Your task to perform on an android device: Open Yahoo.com Image 0: 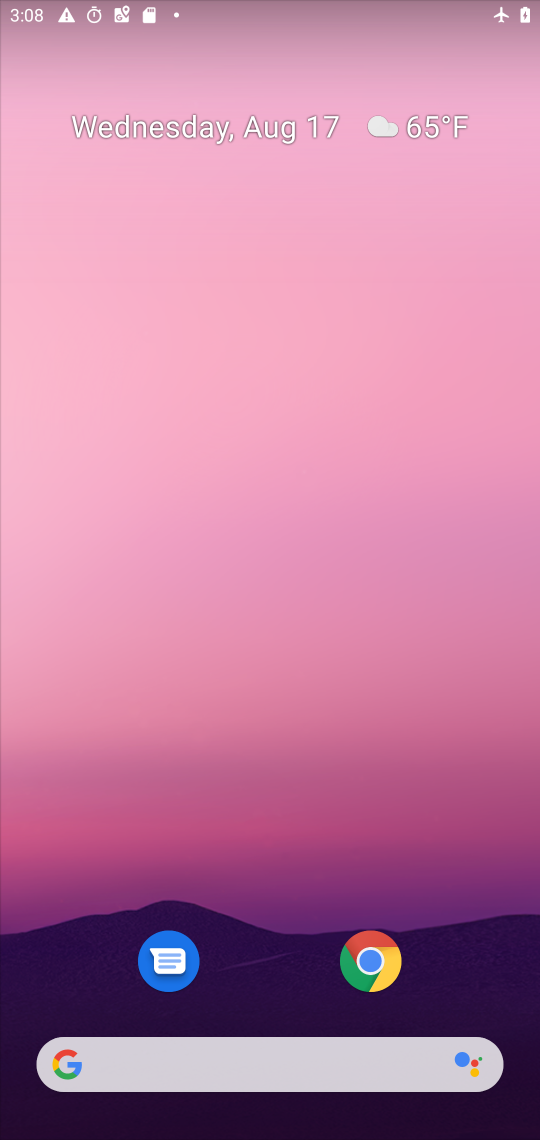
Step 0: drag from (322, 1076) to (351, 4)
Your task to perform on an android device: Open Yahoo.com Image 1: 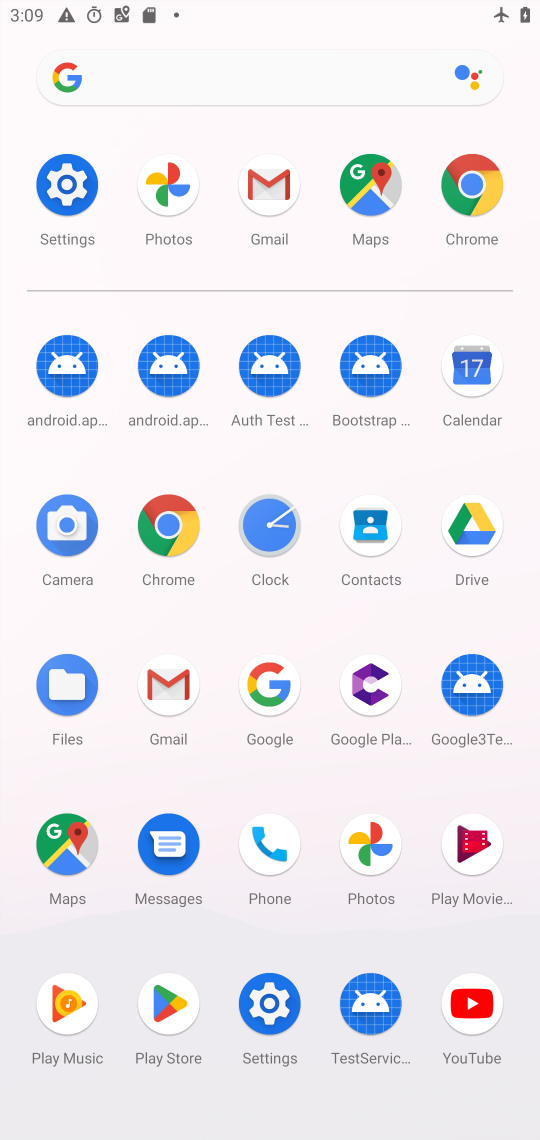
Step 1: click (484, 206)
Your task to perform on an android device: Open Yahoo.com Image 2: 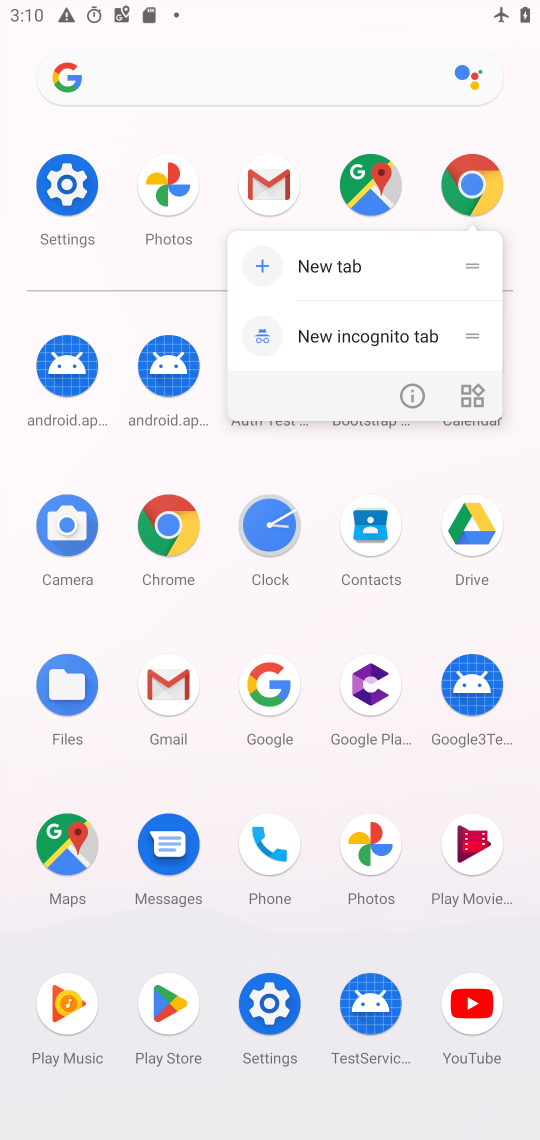
Step 2: click (479, 206)
Your task to perform on an android device: Open Yahoo.com Image 3: 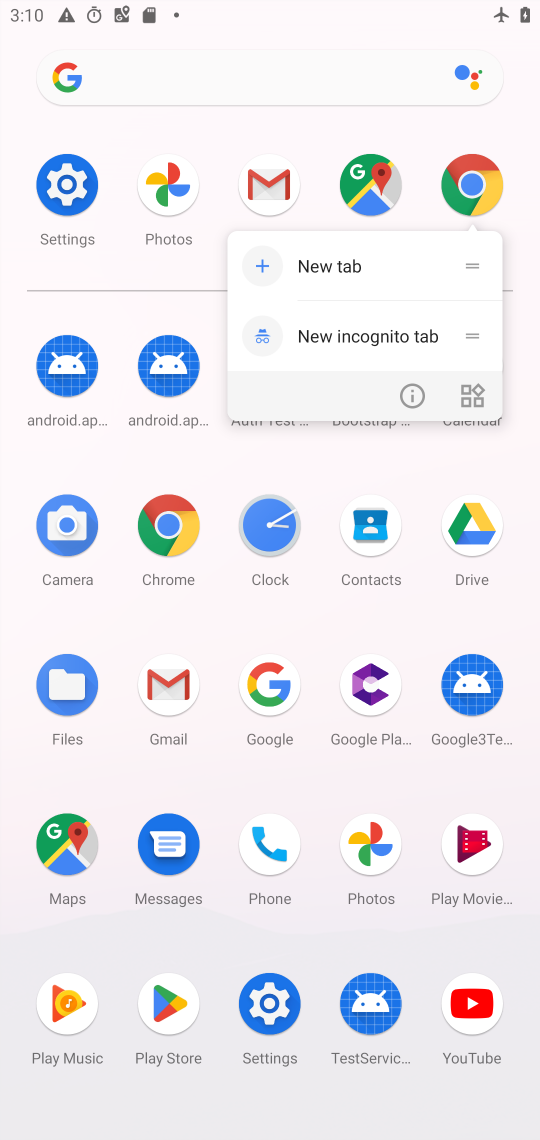
Step 3: click (467, 181)
Your task to perform on an android device: Open Yahoo.com Image 4: 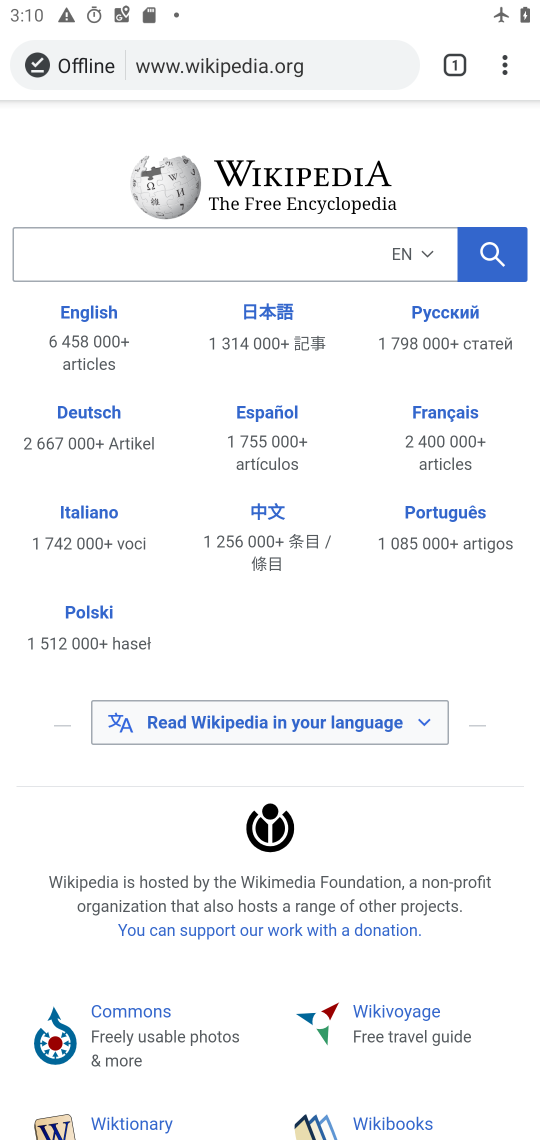
Step 4: click (298, 74)
Your task to perform on an android device: Open Yahoo.com Image 5: 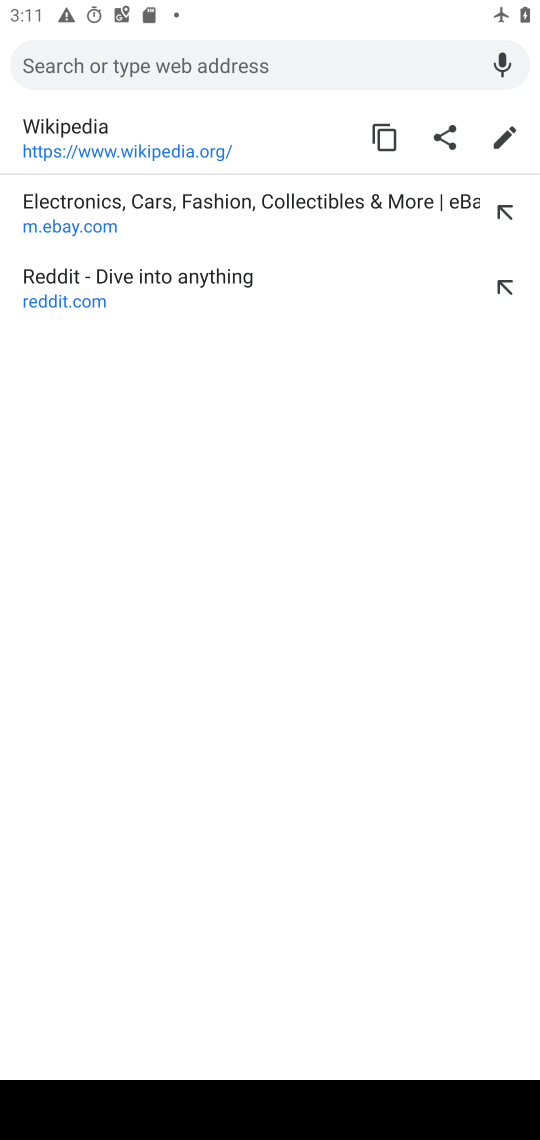
Step 5: type "yahoo"
Your task to perform on an android device: Open Yahoo.com Image 6: 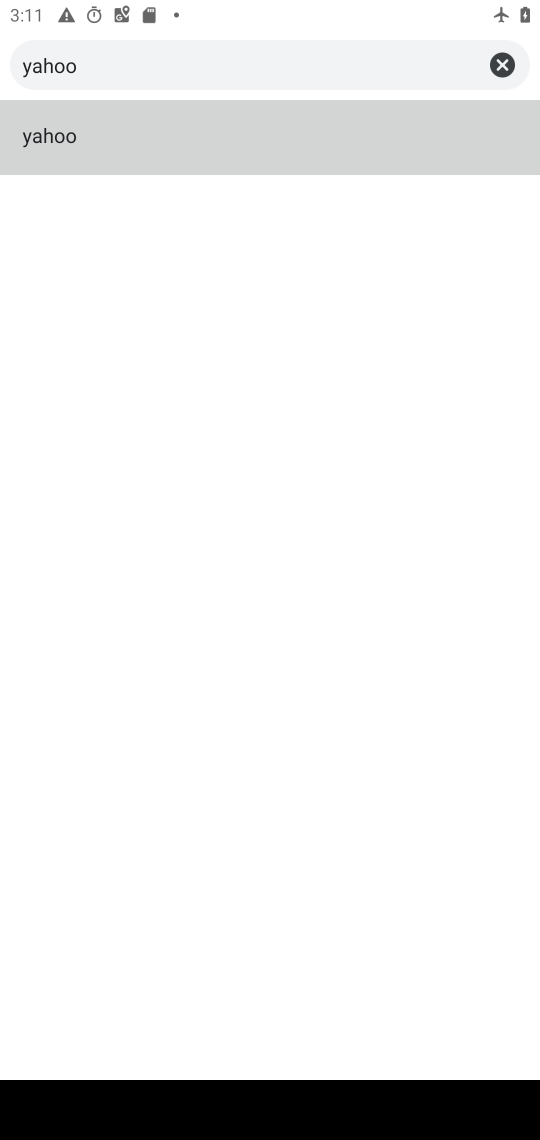
Step 6: click (170, 138)
Your task to perform on an android device: Open Yahoo.com Image 7: 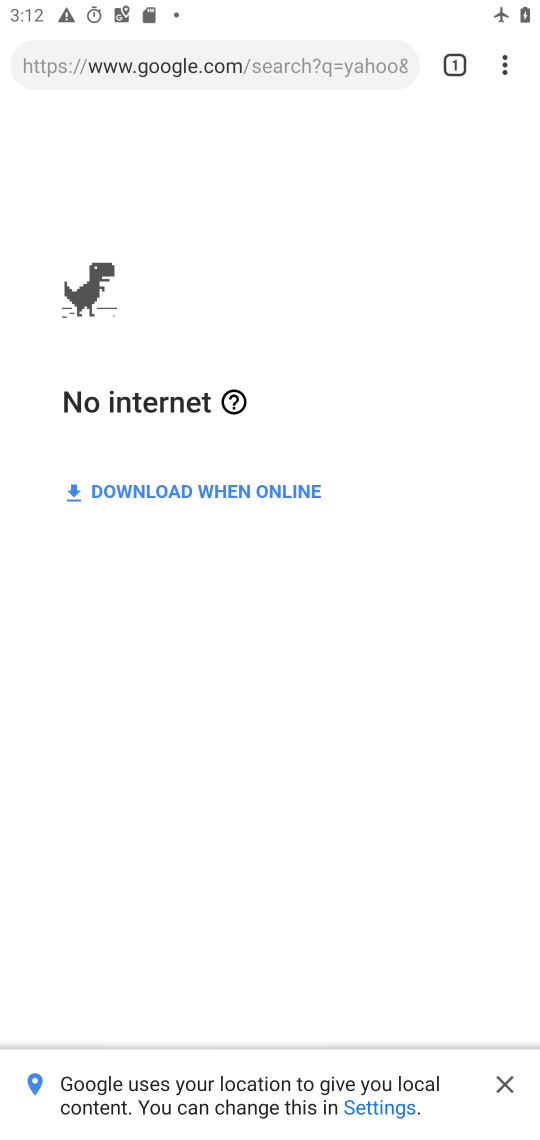
Step 7: task complete